Your task to perform on an android device: Open CNN.com Image 0: 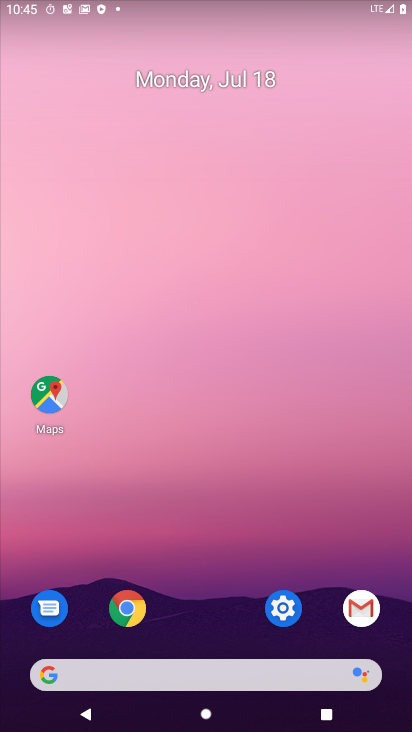
Step 0: click (129, 611)
Your task to perform on an android device: Open CNN.com Image 1: 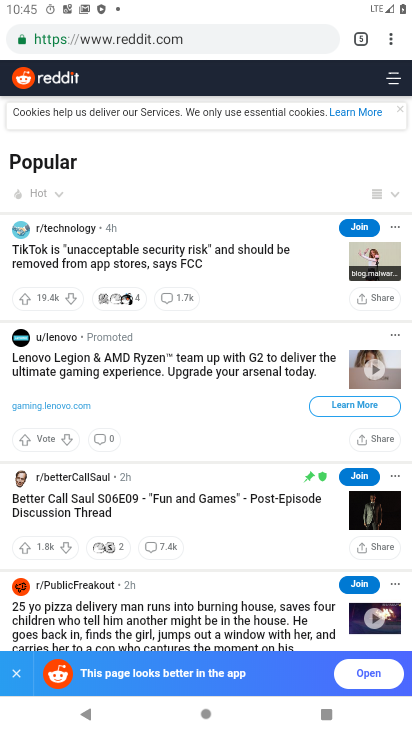
Step 1: click (139, 36)
Your task to perform on an android device: Open CNN.com Image 2: 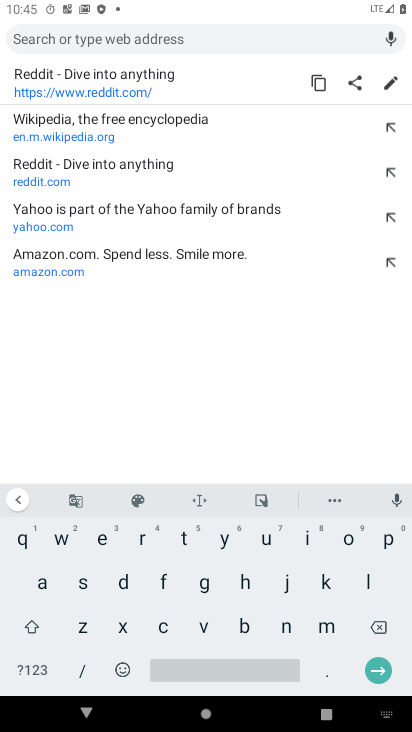
Step 2: click (161, 629)
Your task to perform on an android device: Open CNN.com Image 3: 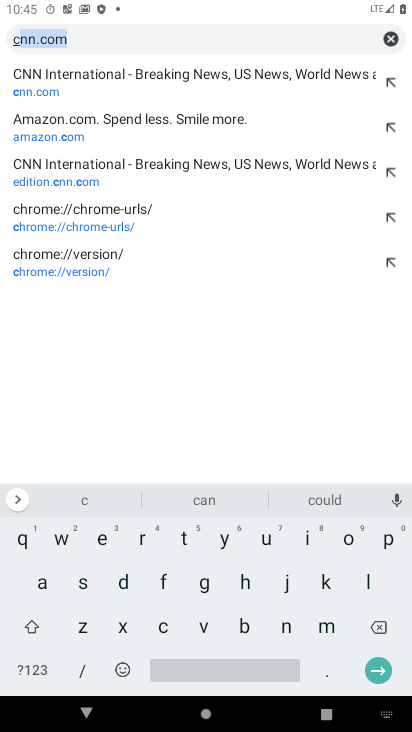
Step 3: click (110, 37)
Your task to perform on an android device: Open CNN.com Image 4: 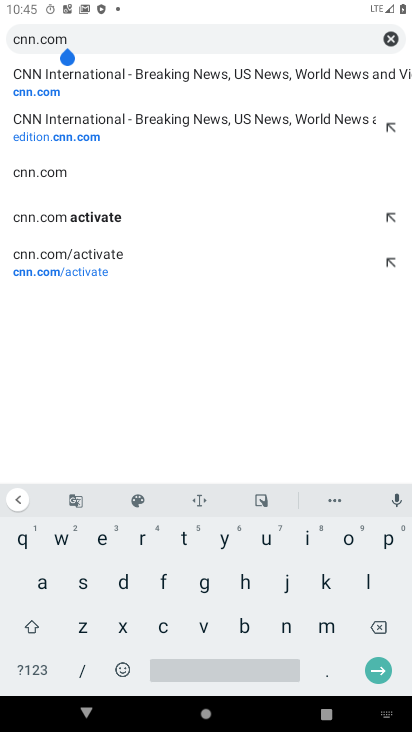
Step 4: click (373, 683)
Your task to perform on an android device: Open CNN.com Image 5: 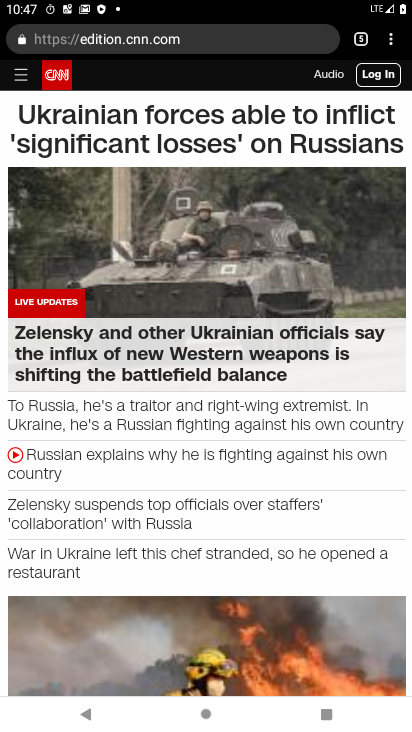
Step 5: task complete